Your task to perform on an android device: Open network settings Image 0: 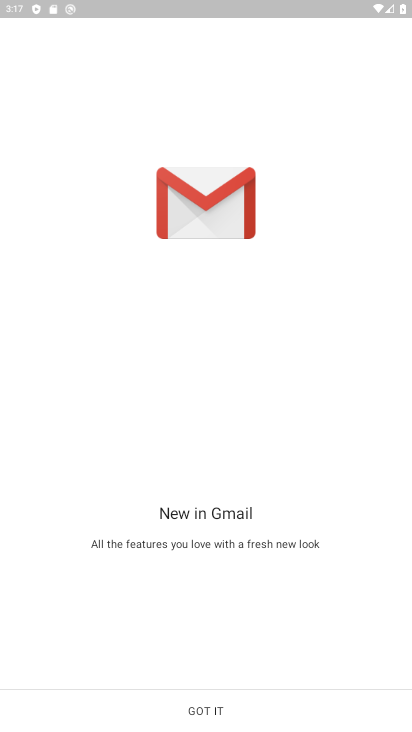
Step 0: press home button
Your task to perform on an android device: Open network settings Image 1: 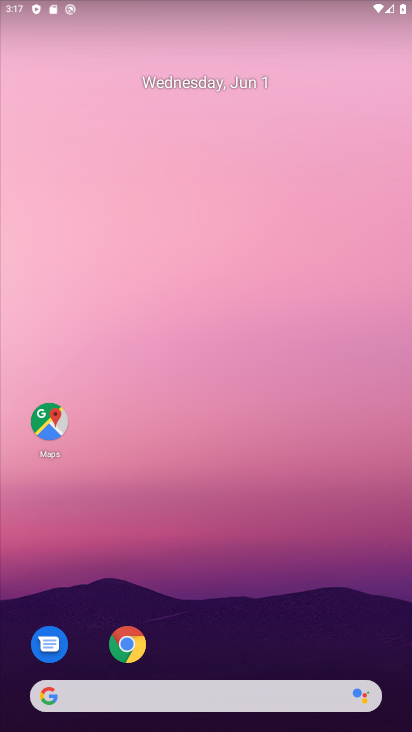
Step 1: drag from (234, 622) to (156, 96)
Your task to perform on an android device: Open network settings Image 2: 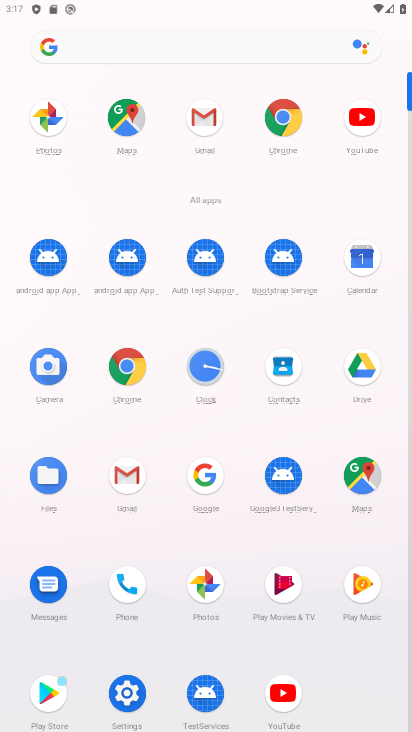
Step 2: click (138, 684)
Your task to perform on an android device: Open network settings Image 3: 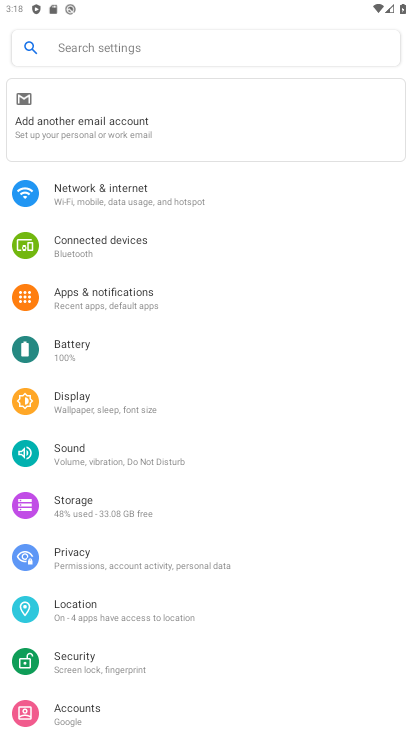
Step 3: click (102, 181)
Your task to perform on an android device: Open network settings Image 4: 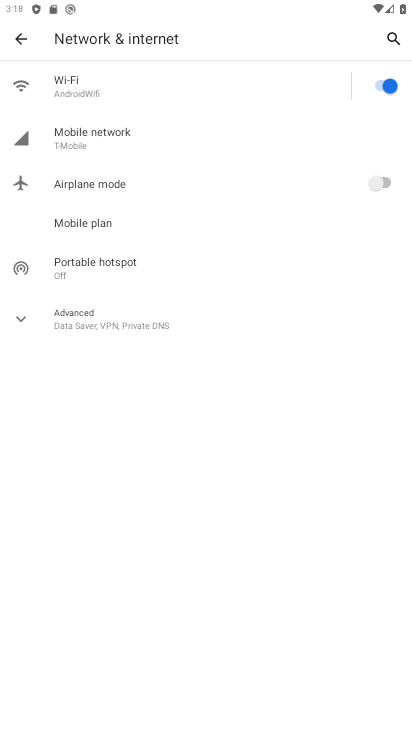
Step 4: task complete